Your task to perform on an android device: Go to Maps Image 0: 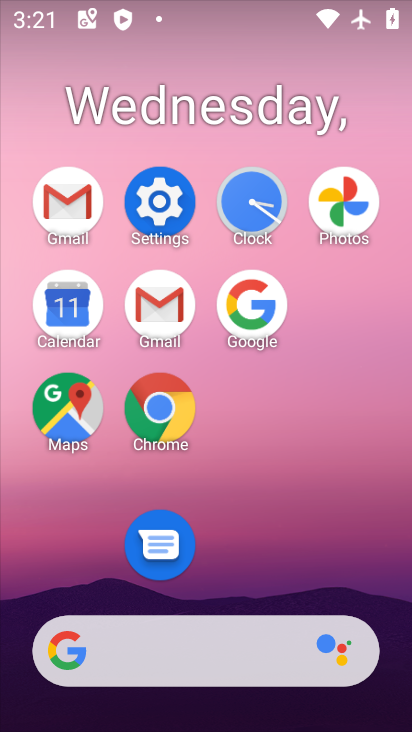
Step 0: click (96, 405)
Your task to perform on an android device: Go to Maps Image 1: 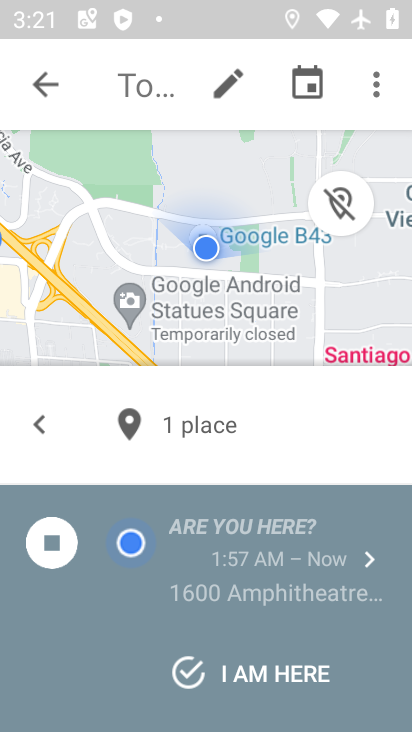
Step 1: task complete